Your task to perform on an android device: Go to wifi settings Image 0: 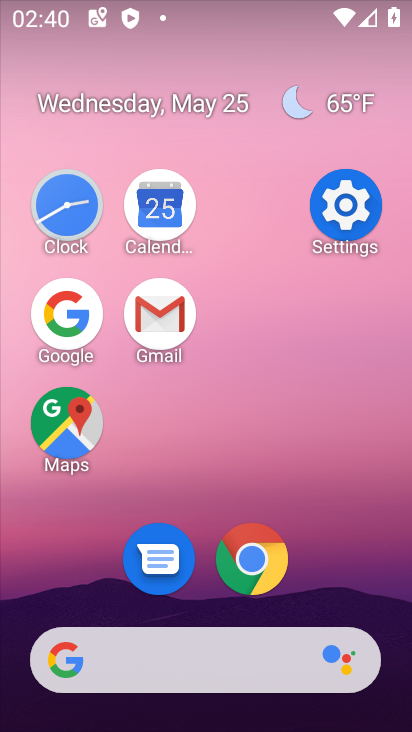
Step 0: click (379, 226)
Your task to perform on an android device: Go to wifi settings Image 1: 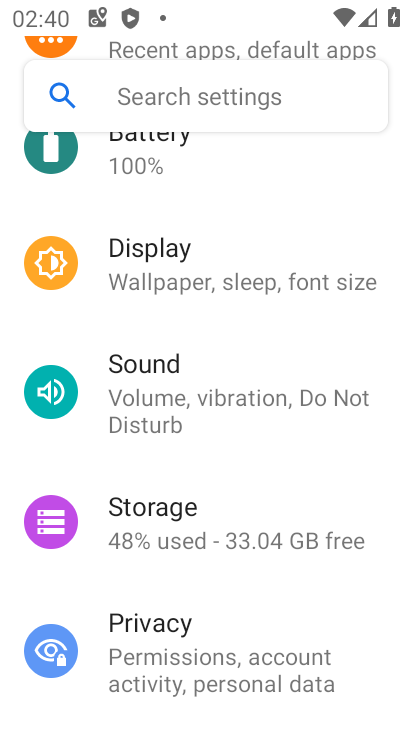
Step 1: drag from (279, 179) to (284, 556)
Your task to perform on an android device: Go to wifi settings Image 2: 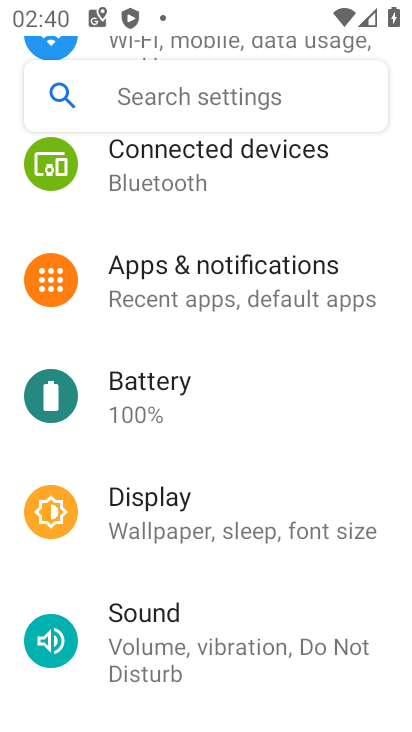
Step 2: drag from (299, 186) to (259, 530)
Your task to perform on an android device: Go to wifi settings Image 3: 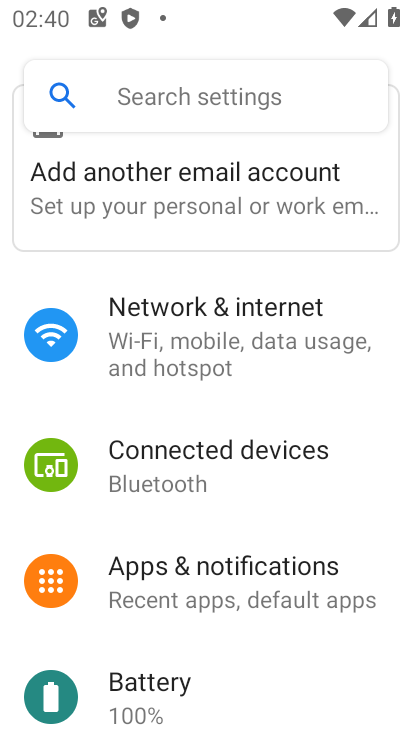
Step 3: click (189, 343)
Your task to perform on an android device: Go to wifi settings Image 4: 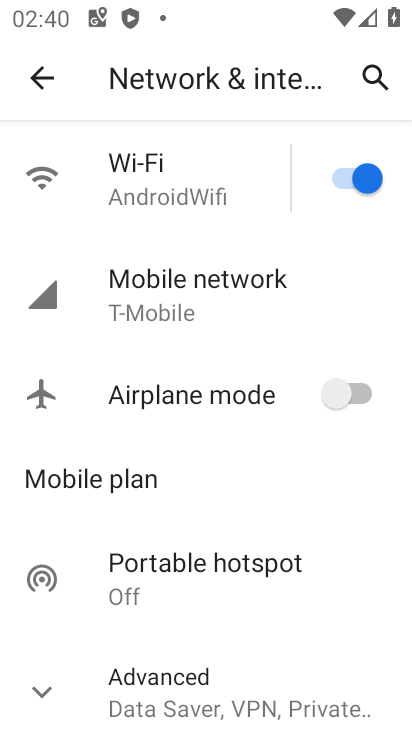
Step 4: click (214, 189)
Your task to perform on an android device: Go to wifi settings Image 5: 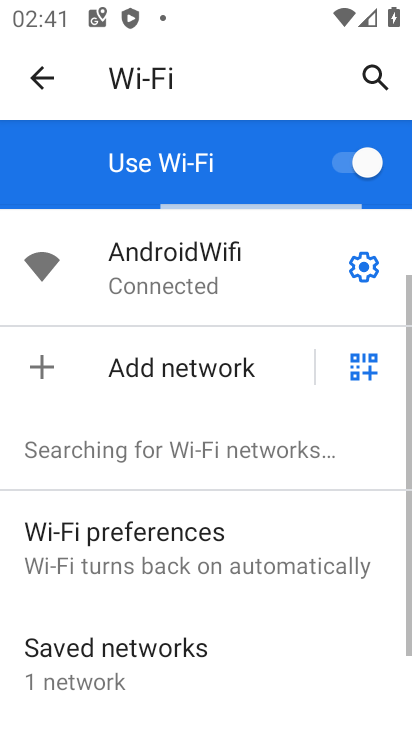
Step 5: click (366, 264)
Your task to perform on an android device: Go to wifi settings Image 6: 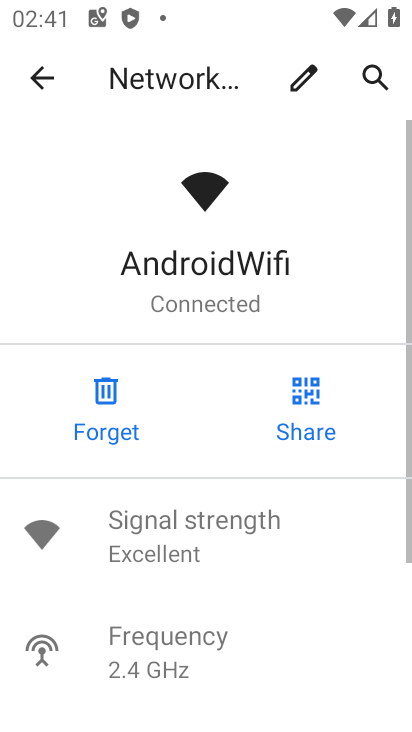
Step 6: task complete